Your task to perform on an android device: Open Reddit.com Image 0: 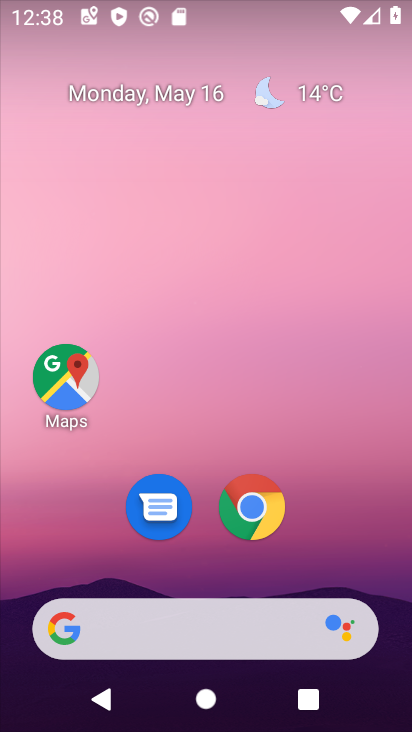
Step 0: drag from (269, 511) to (336, 107)
Your task to perform on an android device: Open Reddit.com Image 1: 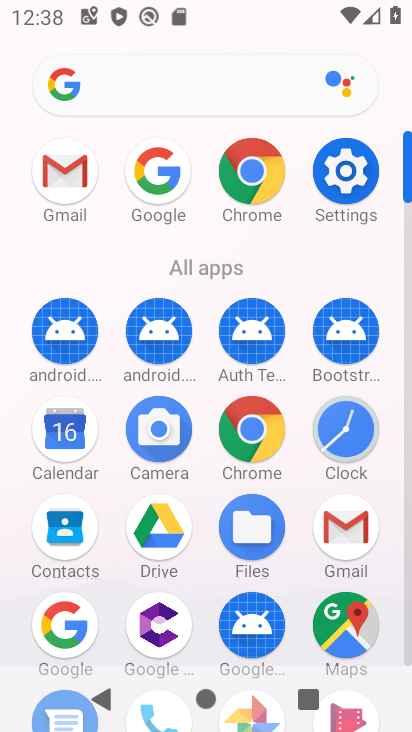
Step 1: click (273, 444)
Your task to perform on an android device: Open Reddit.com Image 2: 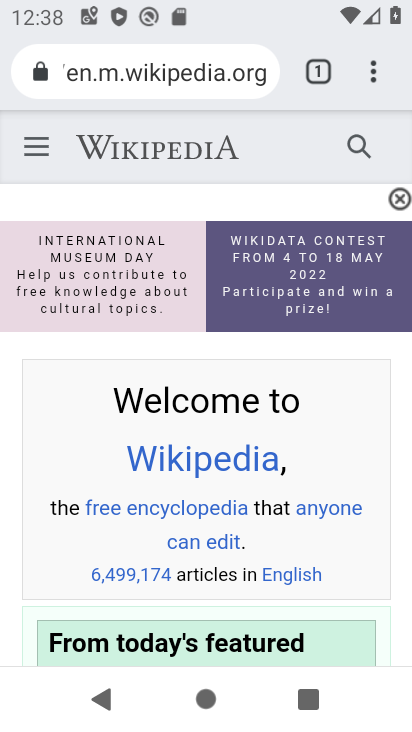
Step 2: click (315, 80)
Your task to perform on an android device: Open Reddit.com Image 3: 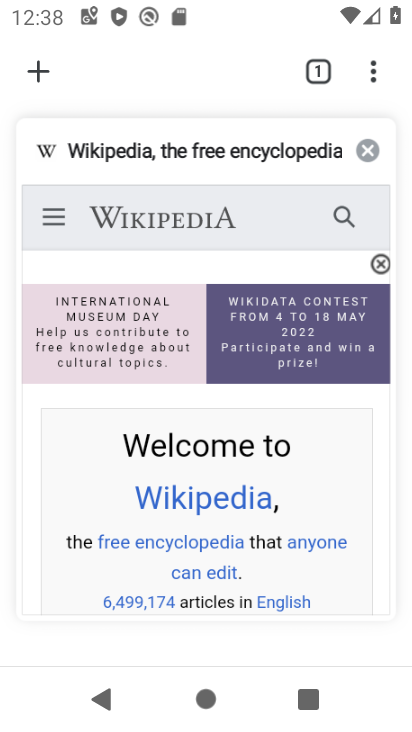
Step 3: click (33, 75)
Your task to perform on an android device: Open Reddit.com Image 4: 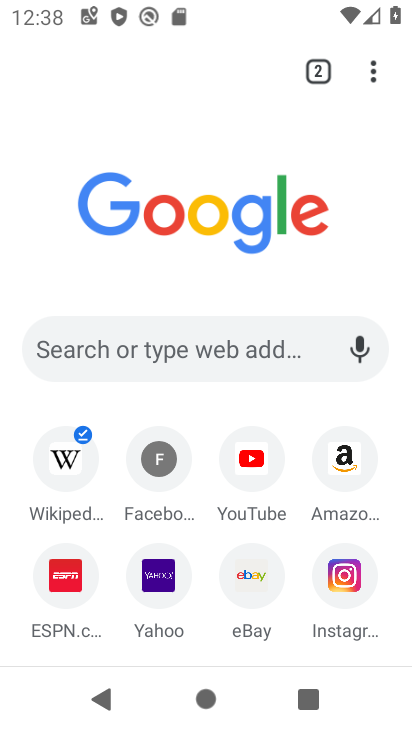
Step 4: type "Reddit.com"
Your task to perform on an android device: Open Reddit.com Image 5: 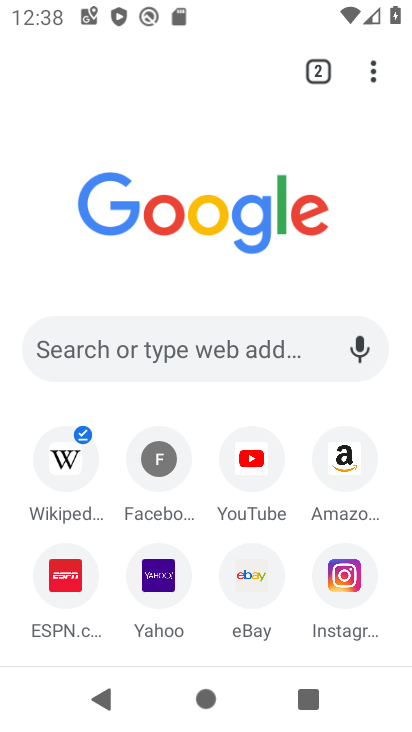
Step 5: click (215, 339)
Your task to perform on an android device: Open Reddit.com Image 6: 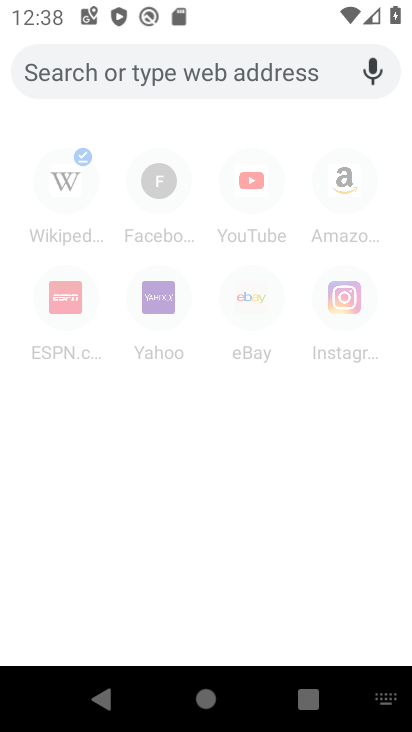
Step 6: type "Reddit.com"
Your task to perform on an android device: Open Reddit.com Image 7: 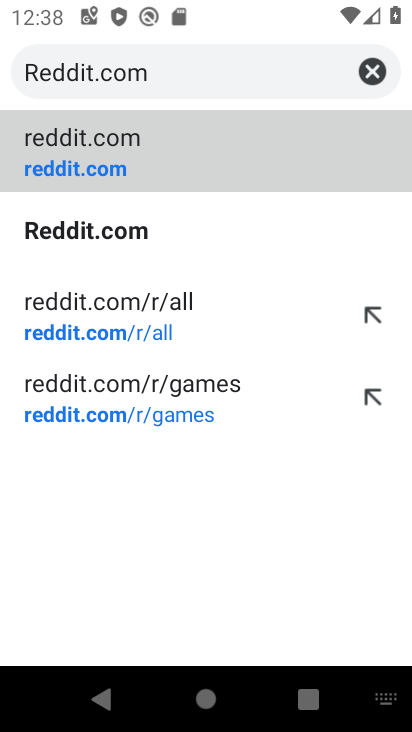
Step 7: click (144, 161)
Your task to perform on an android device: Open Reddit.com Image 8: 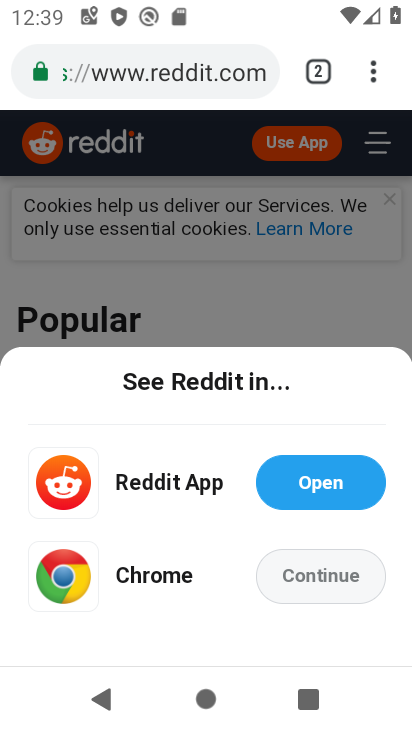
Step 8: click (342, 583)
Your task to perform on an android device: Open Reddit.com Image 9: 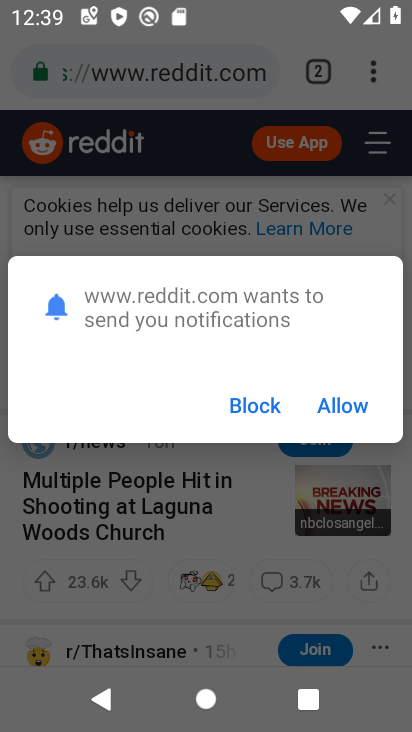
Step 9: click (338, 408)
Your task to perform on an android device: Open Reddit.com Image 10: 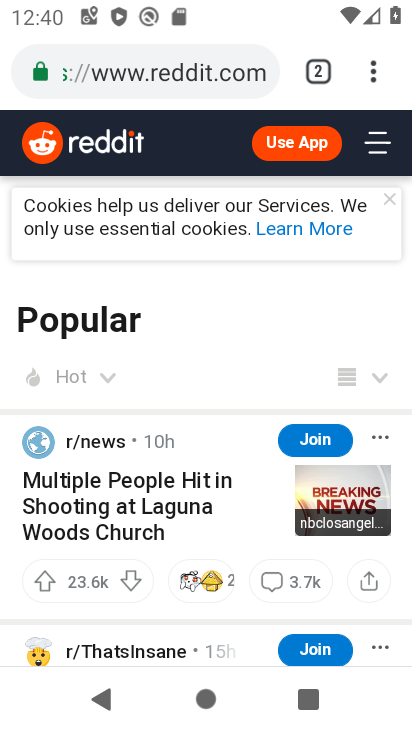
Step 10: task complete